Your task to perform on an android device: open app "Indeed Job Search" (install if not already installed) and enter user name: "quixotic@inbox.com" and password: "microphones" Image 0: 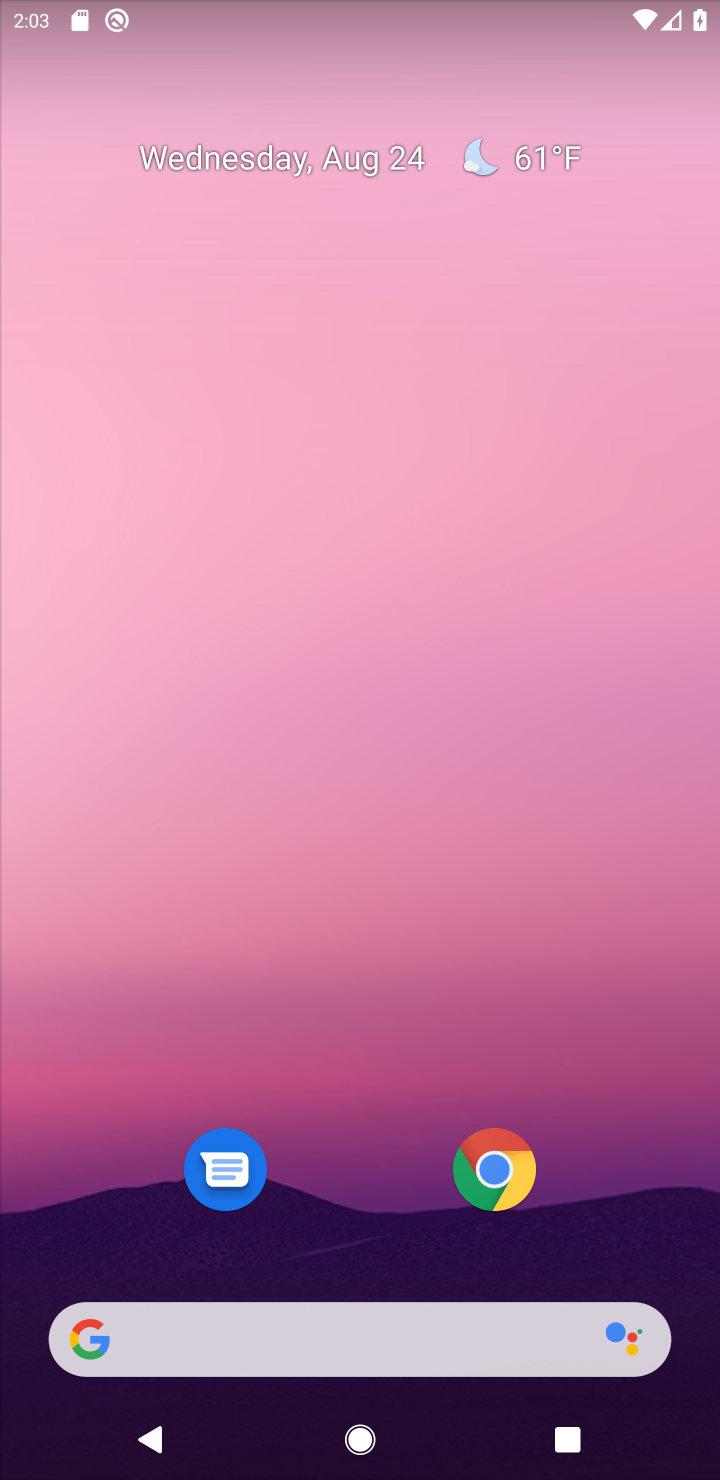
Step 0: drag from (371, 1255) to (246, 312)
Your task to perform on an android device: open app "Indeed Job Search" (install if not already installed) and enter user name: "quixotic@inbox.com" and password: "microphones" Image 1: 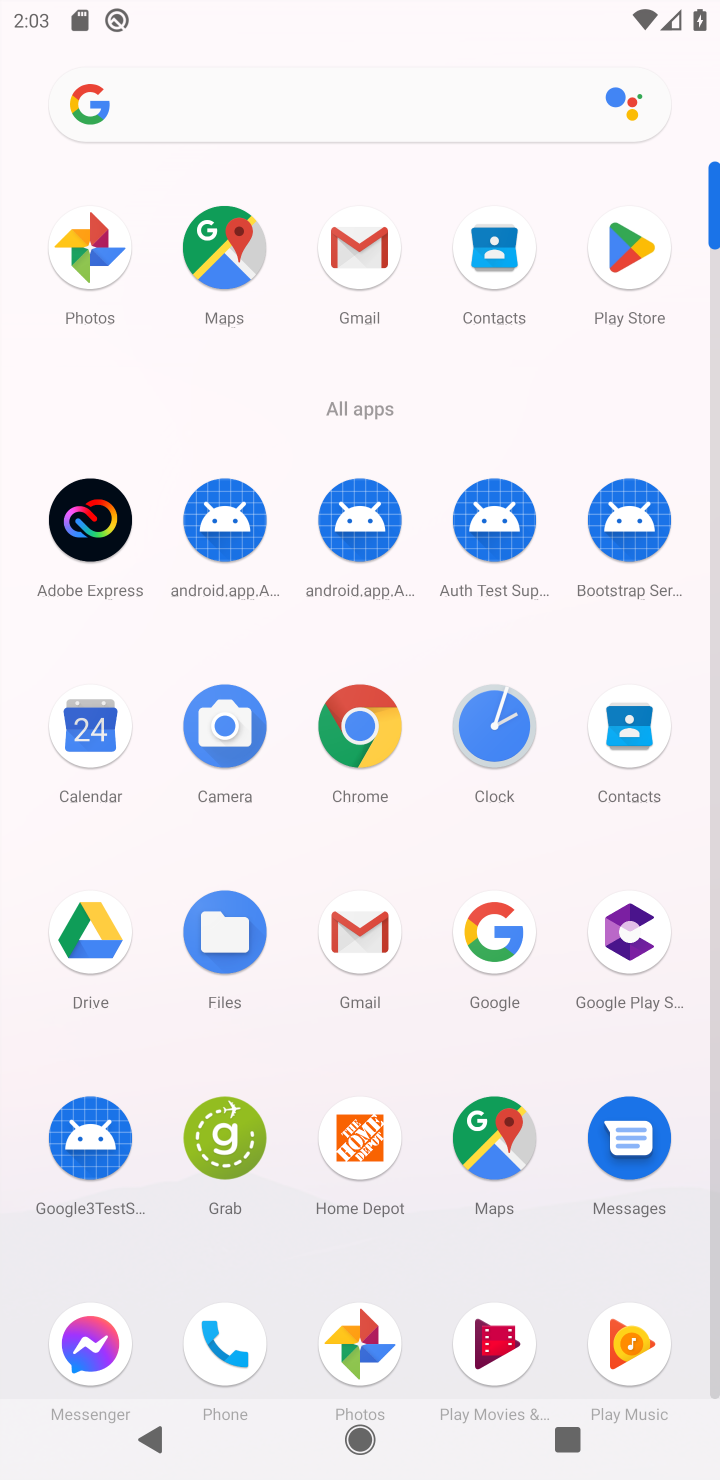
Step 1: click (644, 247)
Your task to perform on an android device: open app "Indeed Job Search" (install if not already installed) and enter user name: "quixotic@inbox.com" and password: "microphones" Image 2: 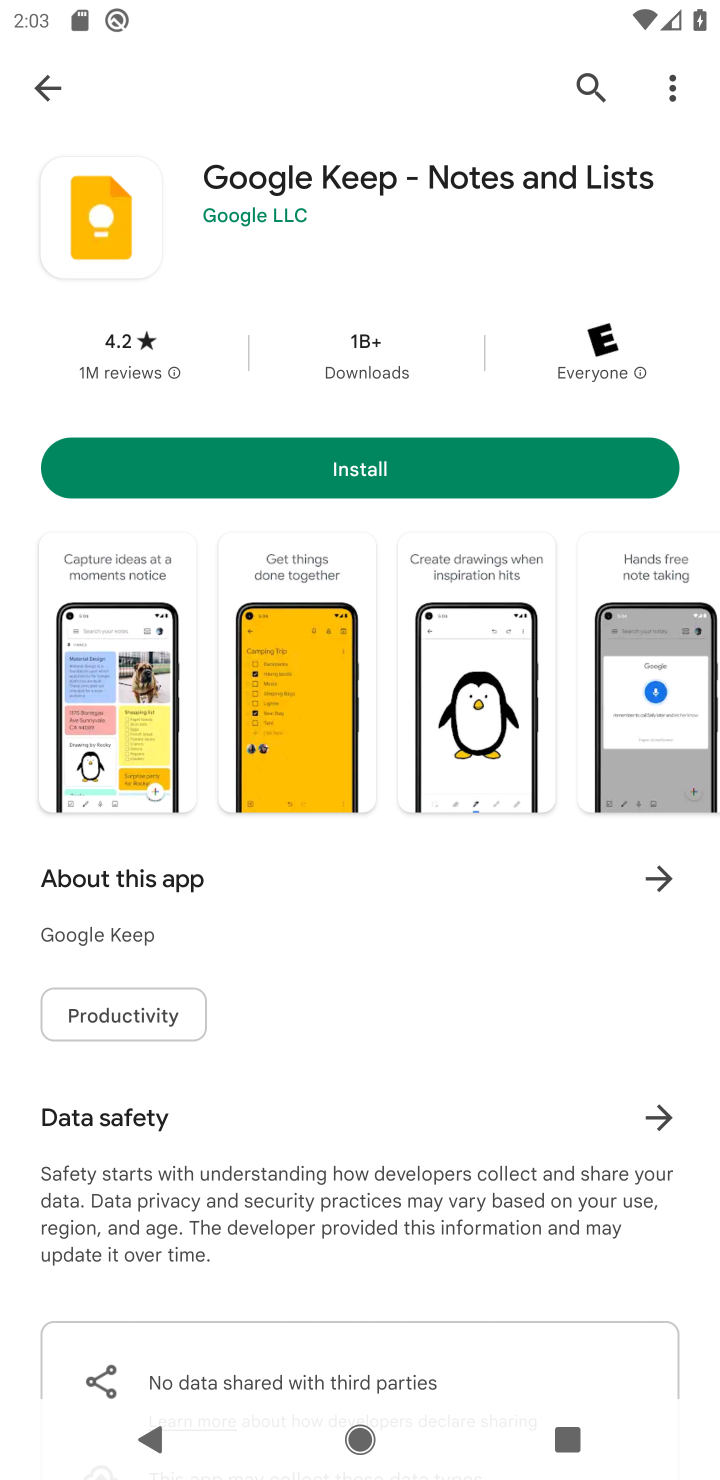
Step 2: click (652, 77)
Your task to perform on an android device: open app "Indeed Job Search" (install if not already installed) and enter user name: "quixotic@inbox.com" and password: "microphones" Image 3: 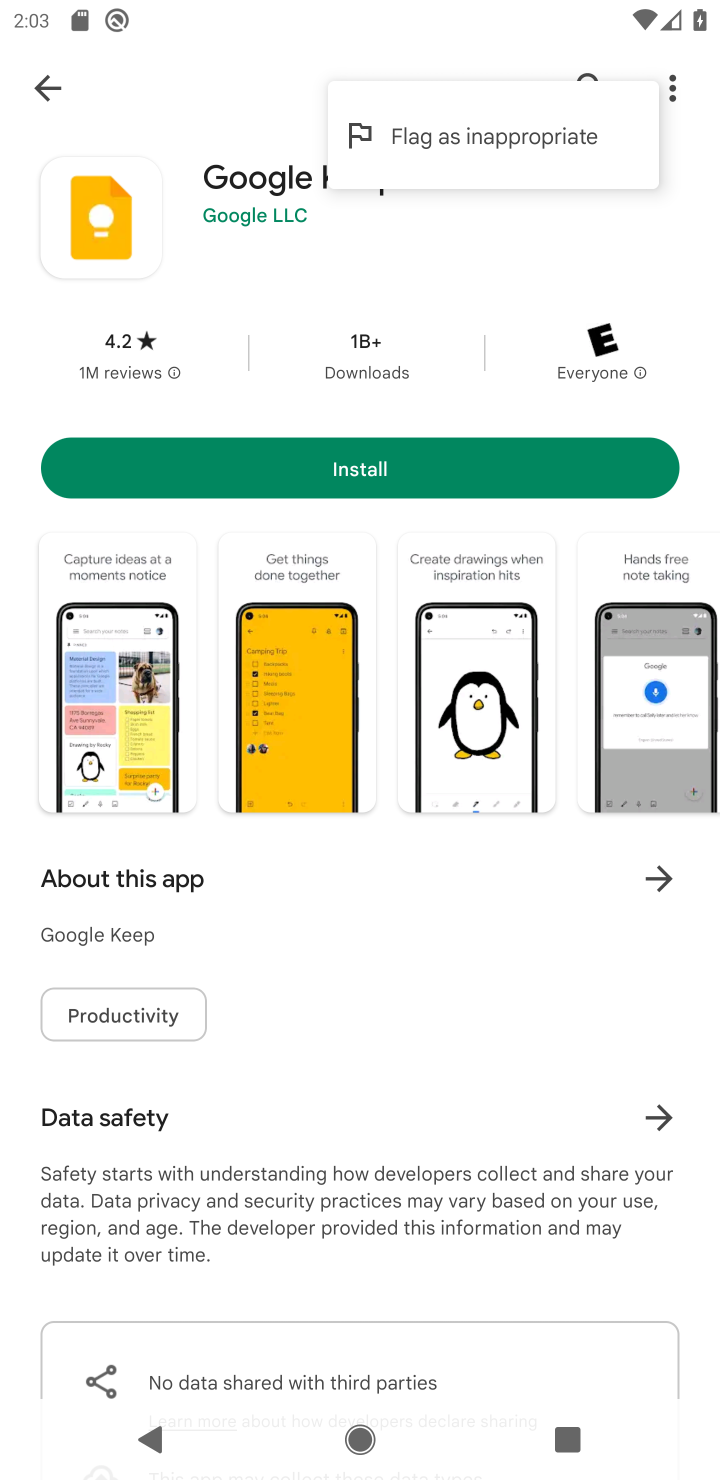
Step 3: click (595, 67)
Your task to perform on an android device: open app "Indeed Job Search" (install if not already installed) and enter user name: "quixotic@inbox.com" and password: "microphones" Image 4: 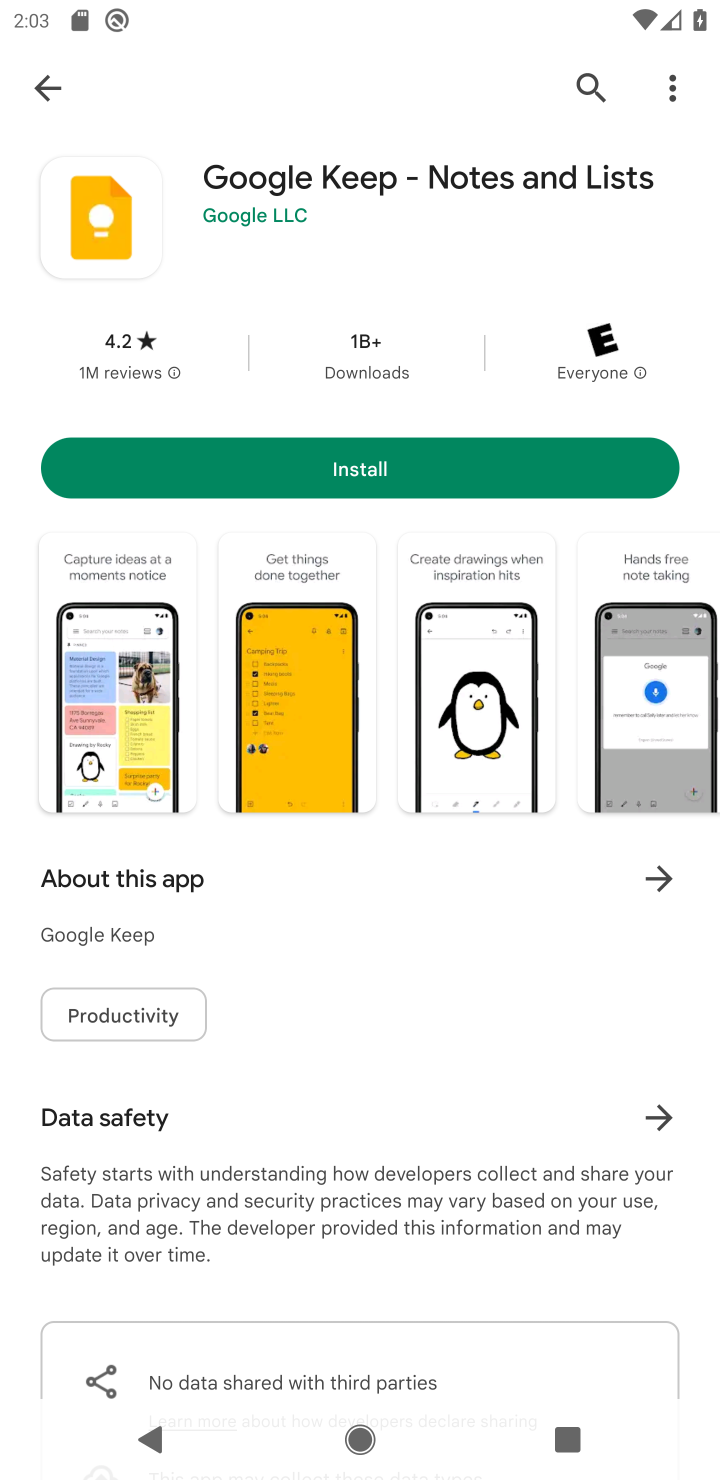
Step 4: click (594, 71)
Your task to perform on an android device: open app "Indeed Job Search" (install if not already installed) and enter user name: "quixotic@inbox.com" and password: "microphones" Image 5: 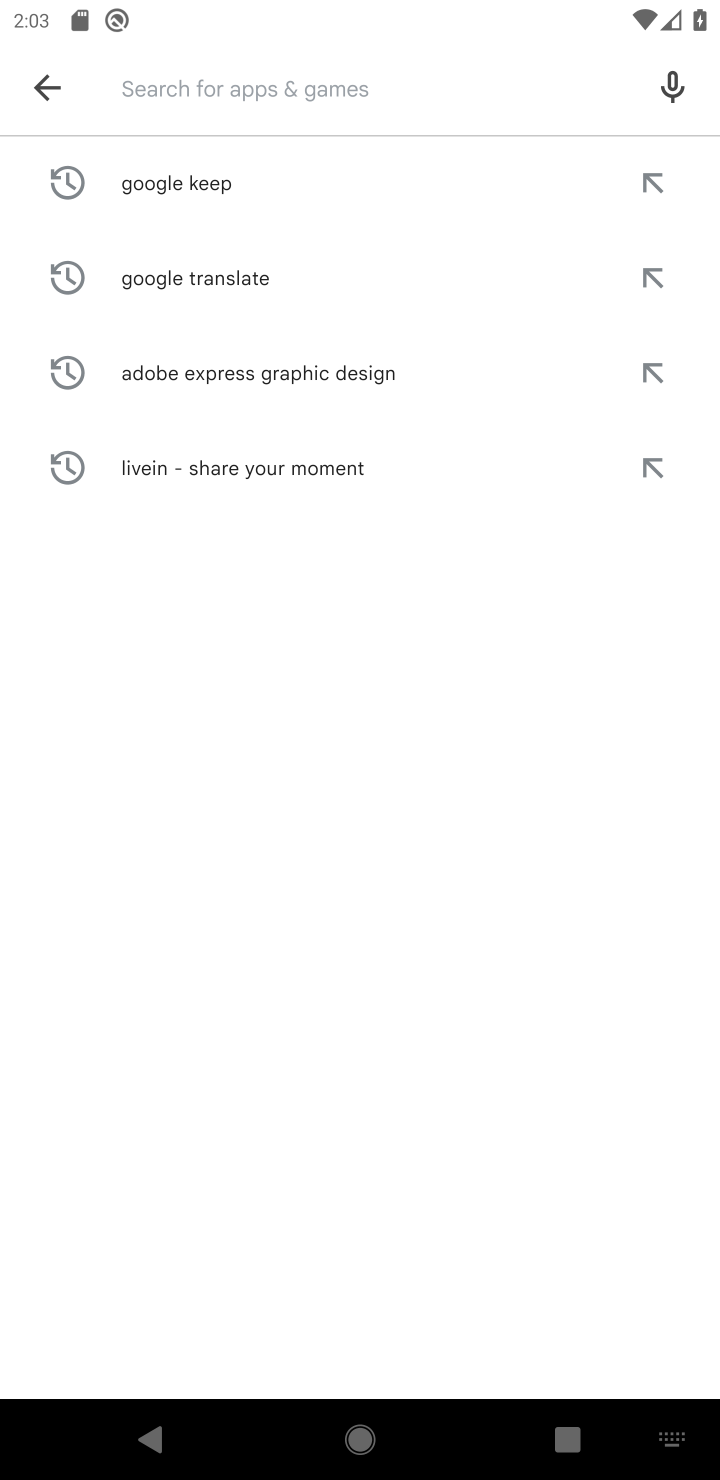
Step 5: type "Indeed Job Search"
Your task to perform on an android device: open app "Indeed Job Search" (install if not already installed) and enter user name: "quixotic@inbox.com" and password: "microphones" Image 6: 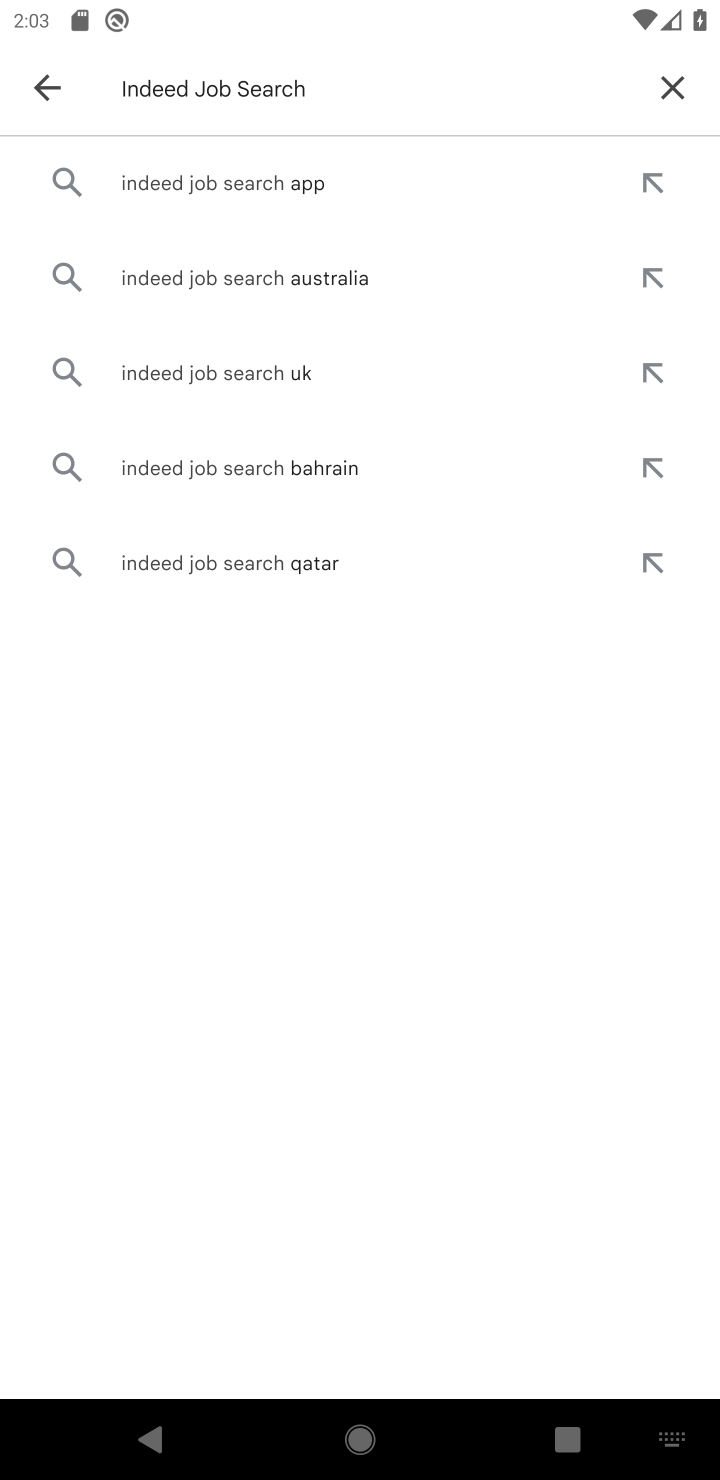
Step 6: click (184, 183)
Your task to perform on an android device: open app "Indeed Job Search" (install if not already installed) and enter user name: "quixotic@inbox.com" and password: "microphones" Image 7: 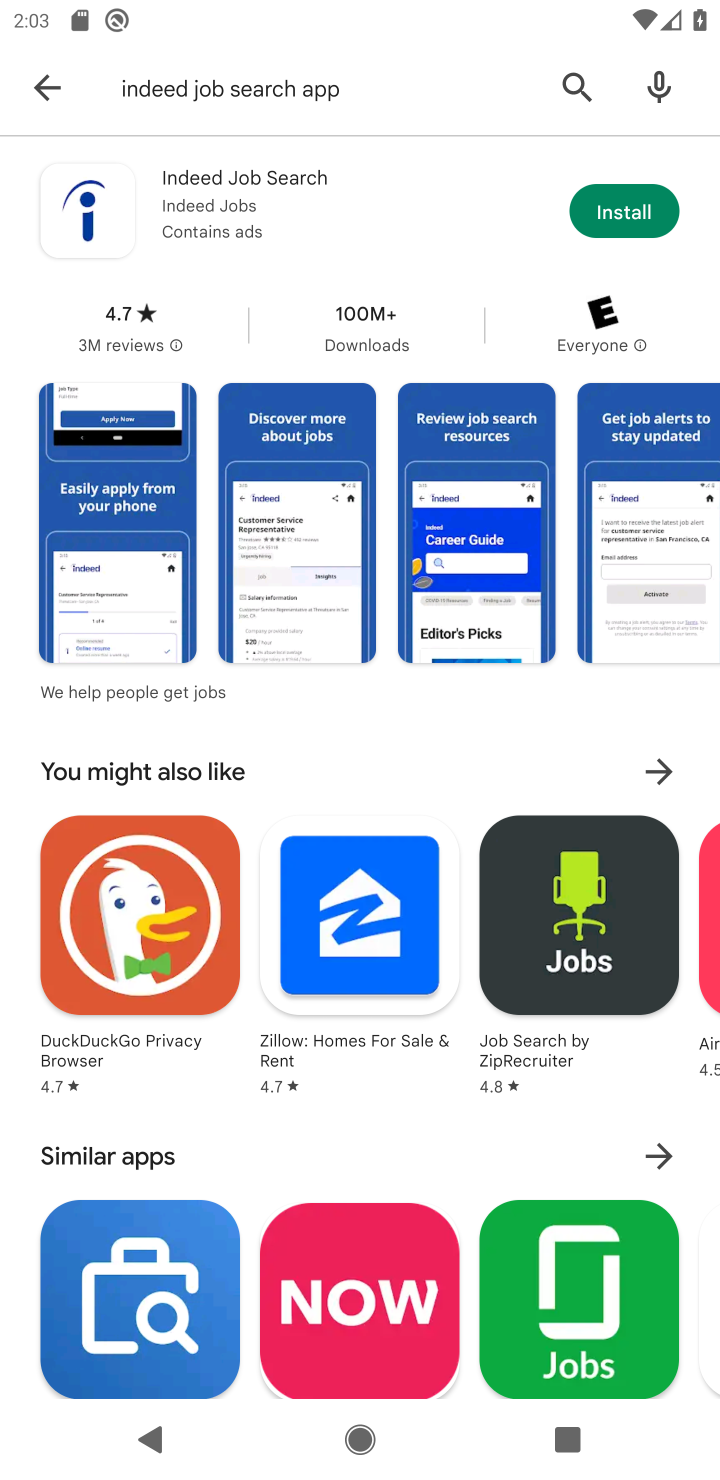
Step 7: click (627, 192)
Your task to perform on an android device: open app "Indeed Job Search" (install if not already installed) and enter user name: "quixotic@inbox.com" and password: "microphones" Image 8: 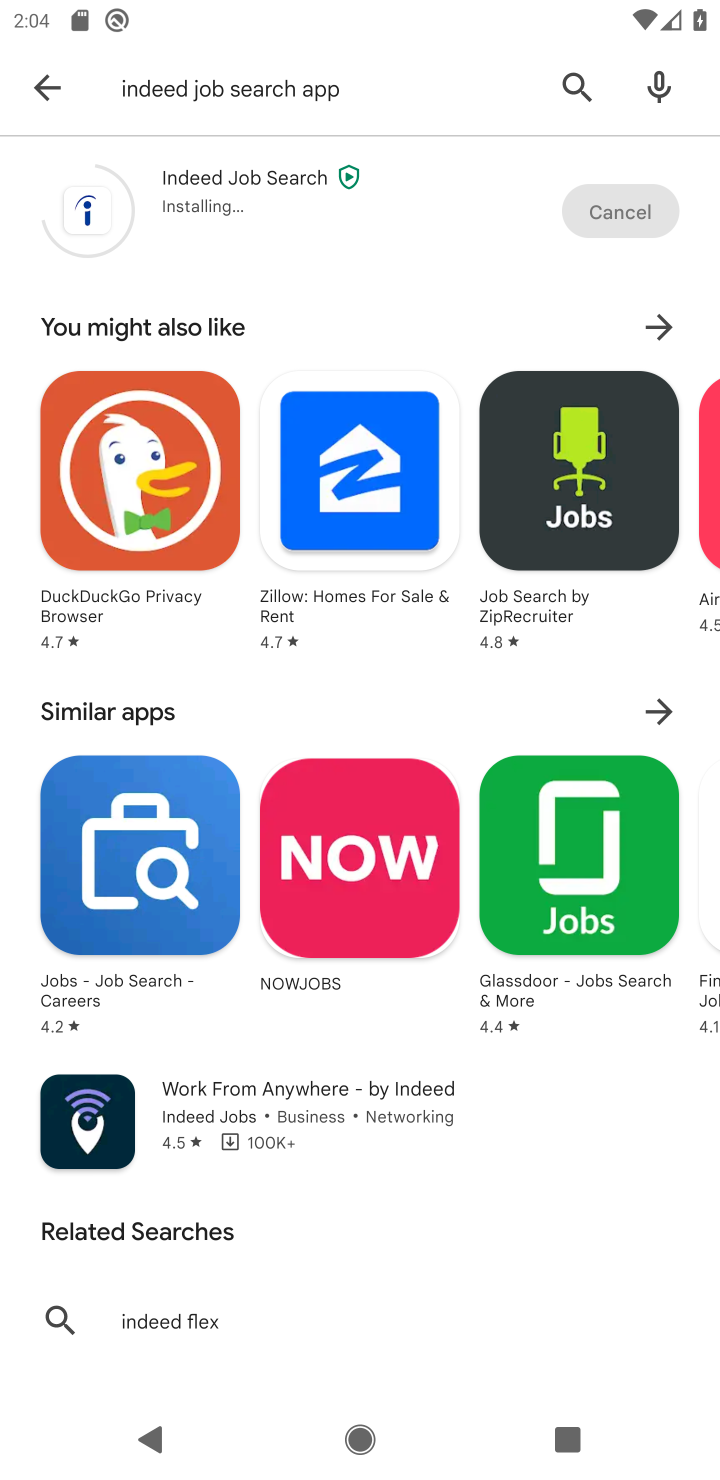
Step 8: click (627, 192)
Your task to perform on an android device: open app "Indeed Job Search" (install if not already installed) and enter user name: "quixotic@inbox.com" and password: "microphones" Image 9: 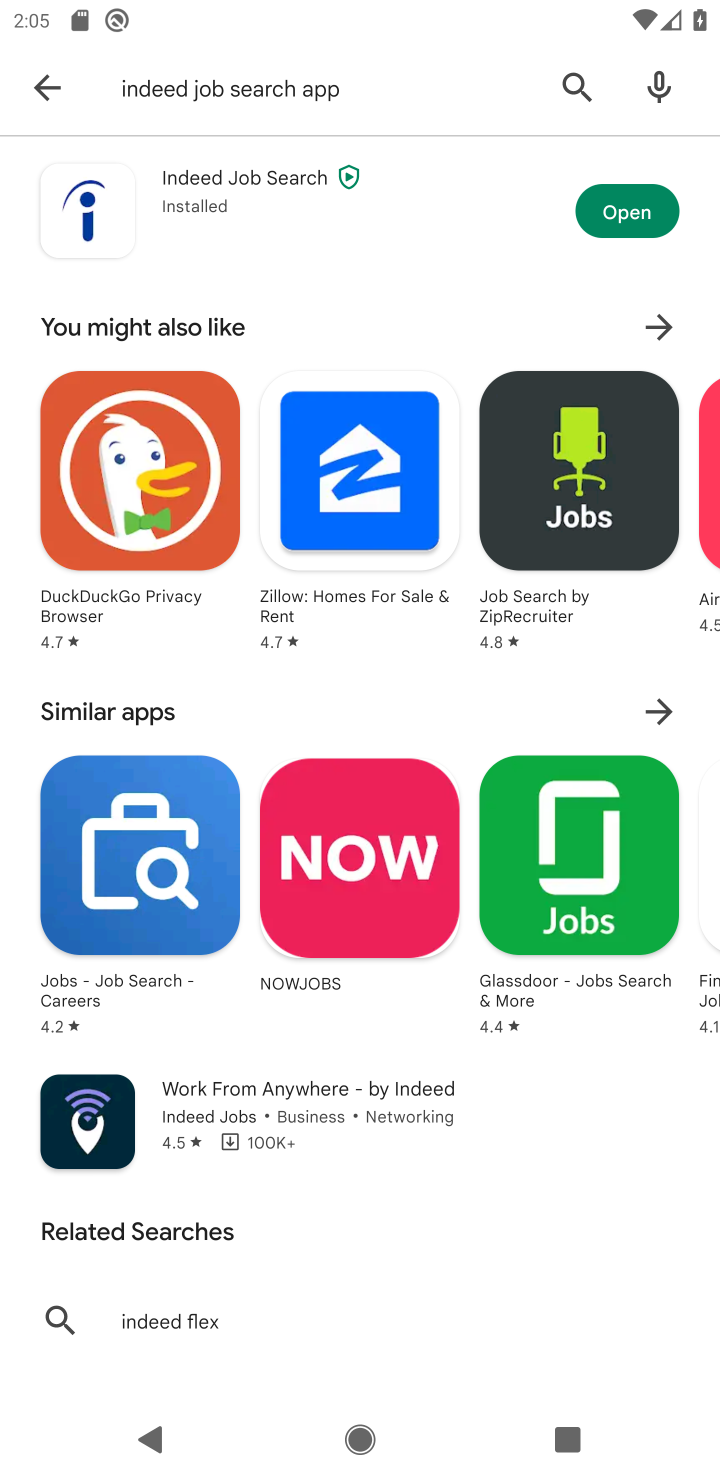
Step 9: click (638, 219)
Your task to perform on an android device: open app "Indeed Job Search" (install if not already installed) and enter user name: "quixotic@inbox.com" and password: "microphones" Image 10: 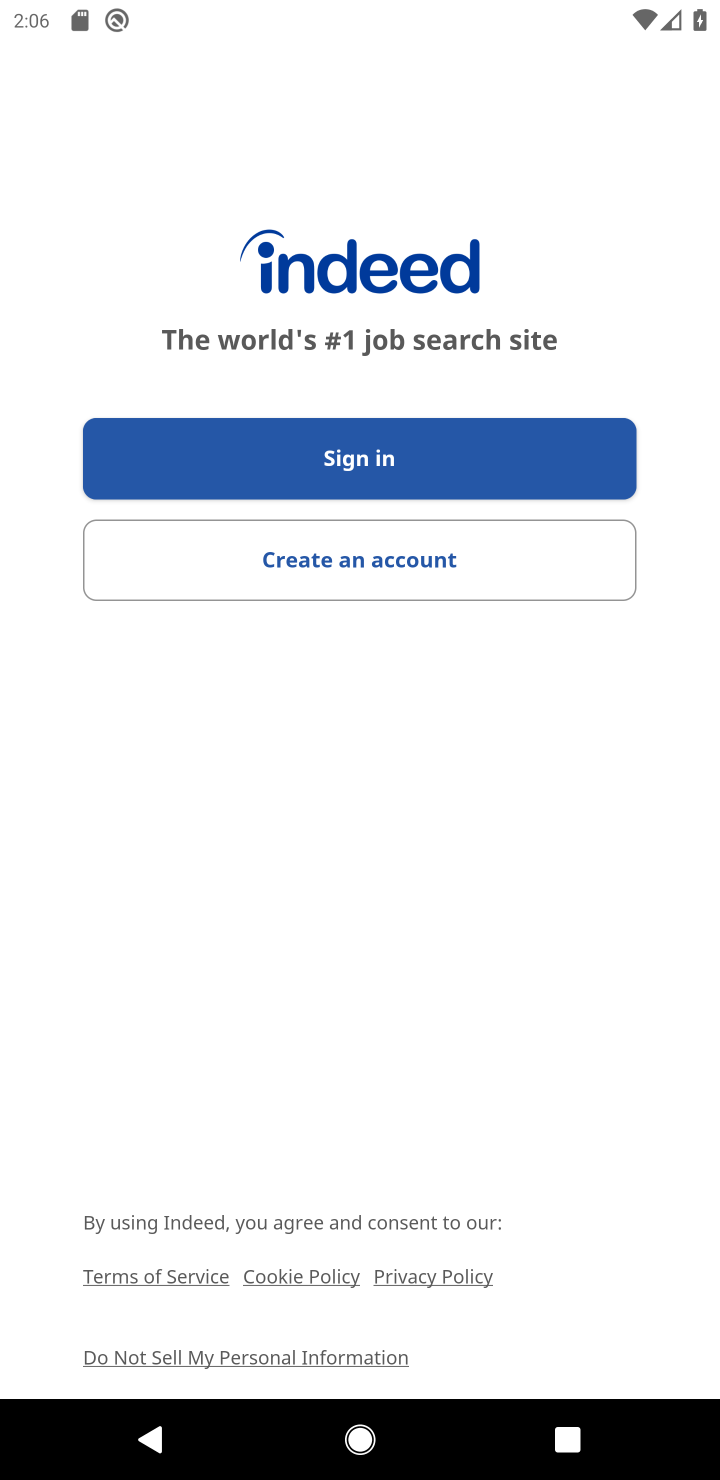
Step 10: click (406, 436)
Your task to perform on an android device: open app "Indeed Job Search" (install if not already installed) and enter user name: "quixotic@inbox.com" and password: "microphones" Image 11: 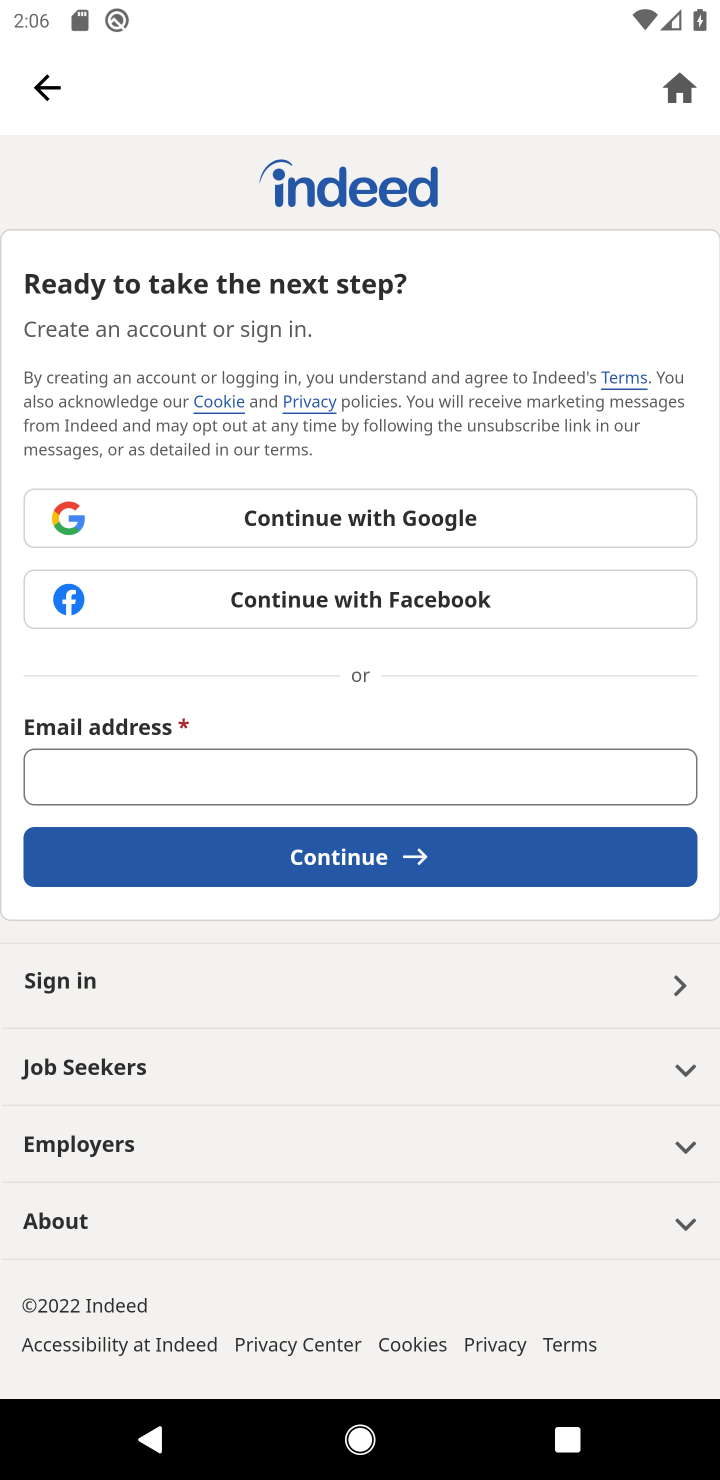
Step 11: click (118, 784)
Your task to perform on an android device: open app "Indeed Job Search" (install if not already installed) and enter user name: "quixotic@inbox.com" and password: "microphones" Image 12: 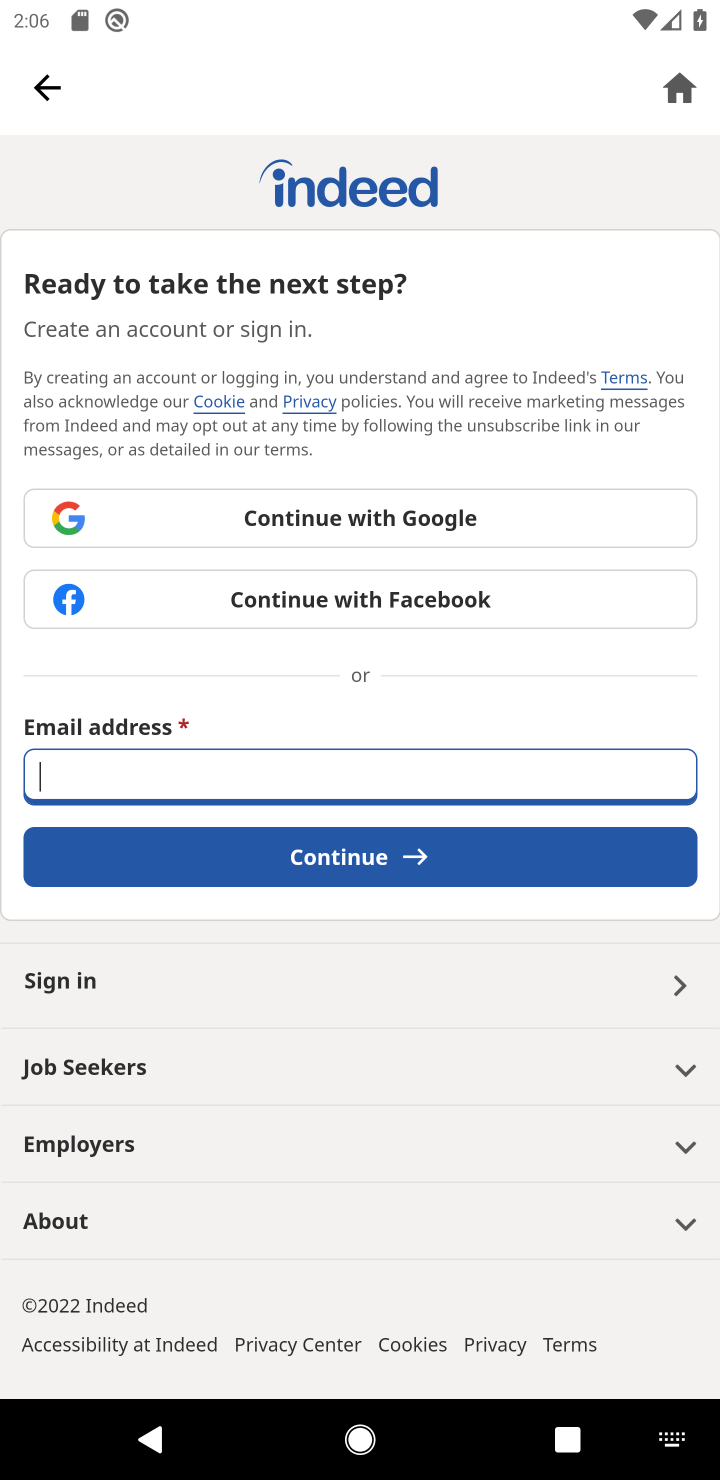
Step 12: type "quixotic@inbox.com"
Your task to perform on an android device: open app "Indeed Job Search" (install if not already installed) and enter user name: "quixotic@inbox.com" and password: "microphones" Image 13: 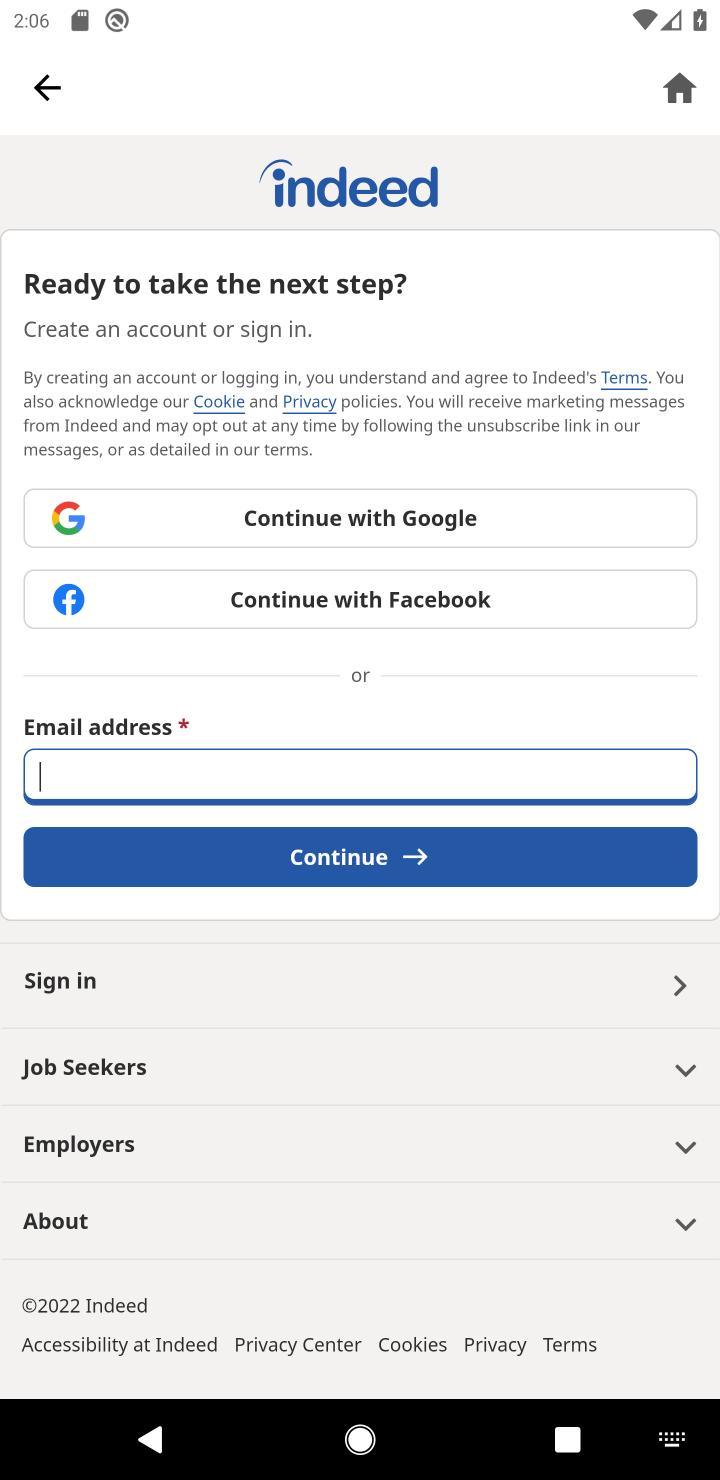
Step 13: click (537, 880)
Your task to perform on an android device: open app "Indeed Job Search" (install if not already installed) and enter user name: "quixotic@inbox.com" and password: "microphones" Image 14: 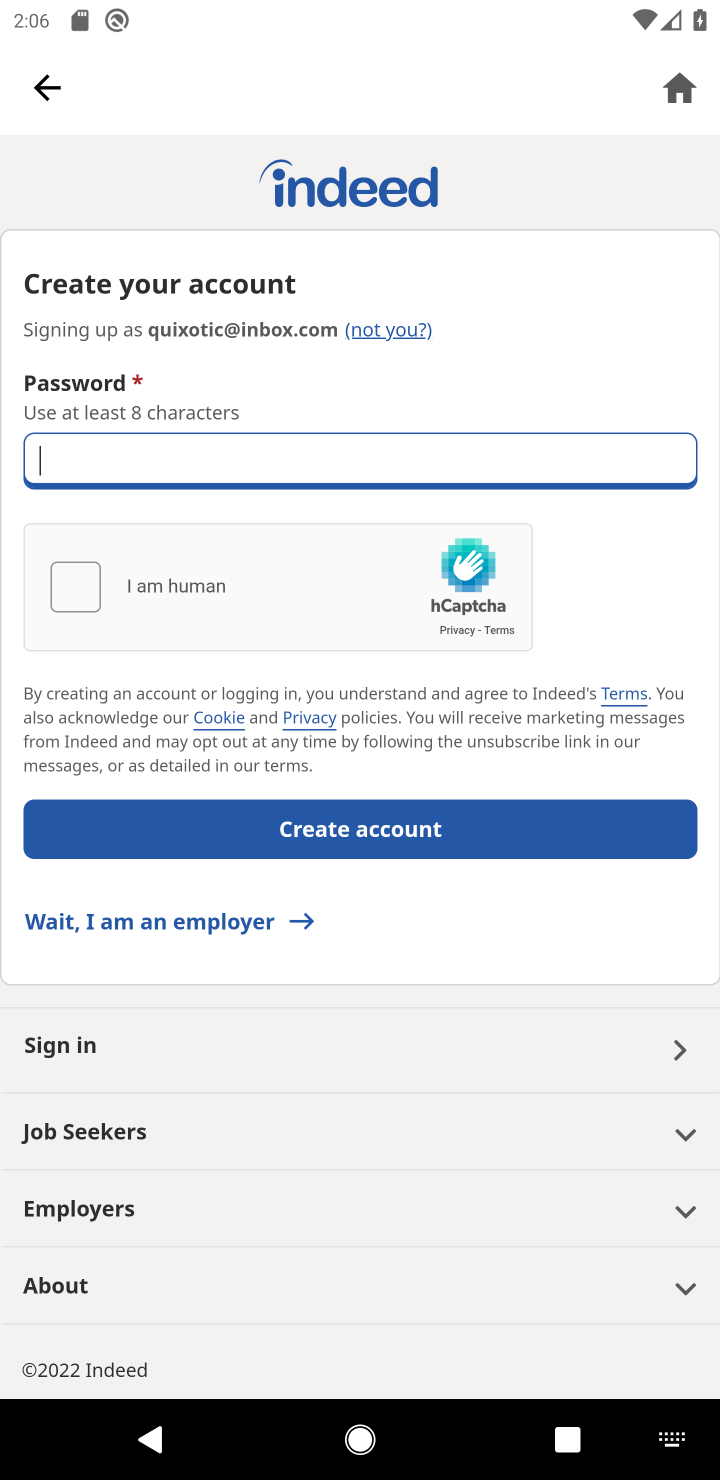
Step 14: type "microphones"
Your task to perform on an android device: open app "Indeed Job Search" (install if not already installed) and enter user name: "quixotic@inbox.com" and password: "microphones" Image 15: 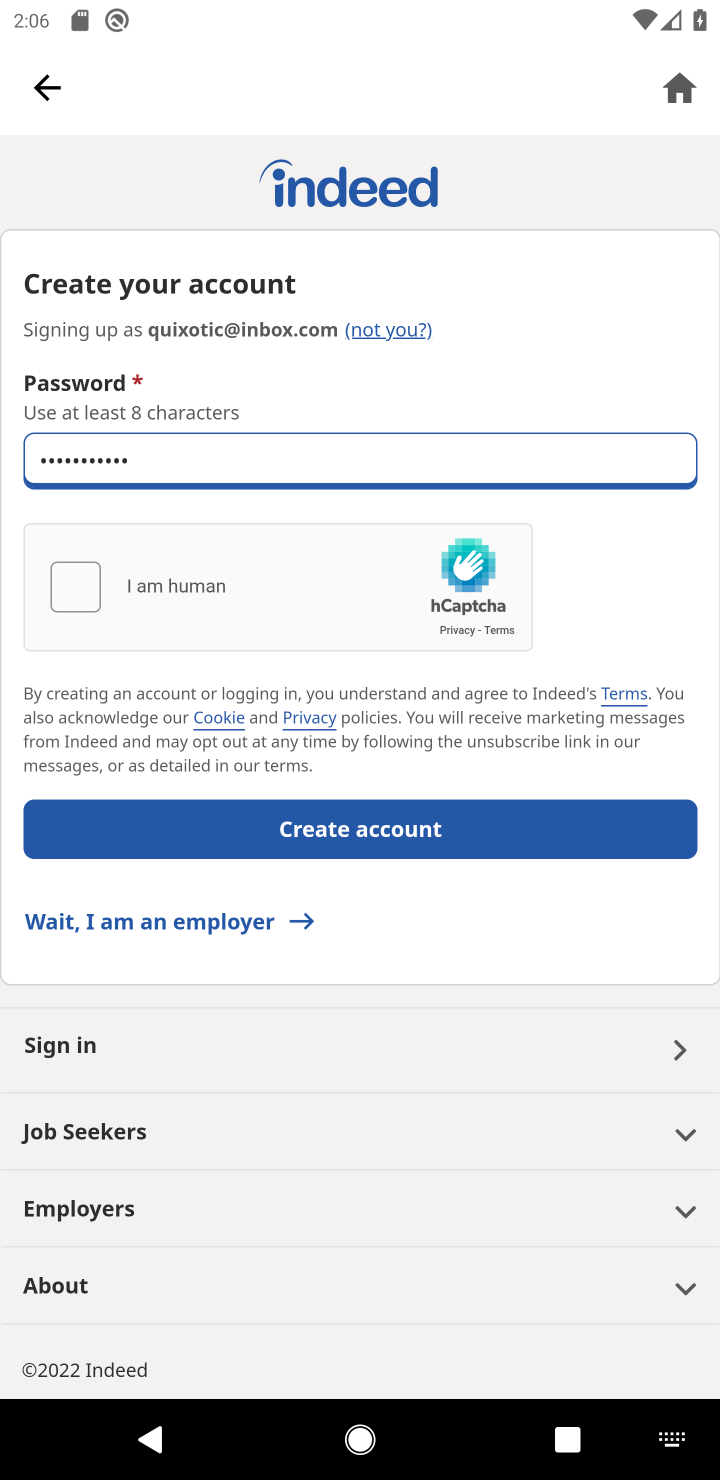
Step 15: task complete